Your task to perform on an android device: Search for dell xps on ebay, select the first entry, add it to the cart, then select checkout. Image 0: 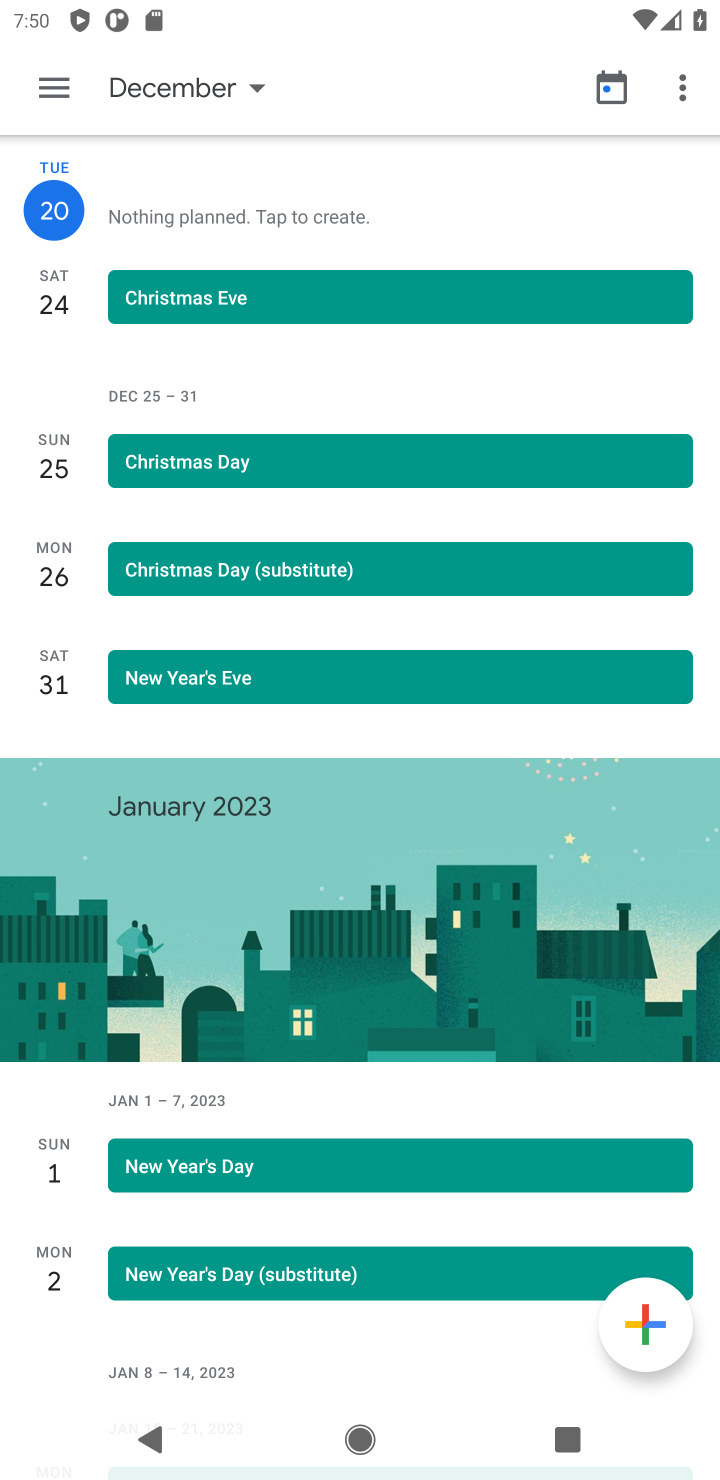
Step 0: press home button
Your task to perform on an android device: Search for dell xps on ebay, select the first entry, add it to the cart, then select checkout. Image 1: 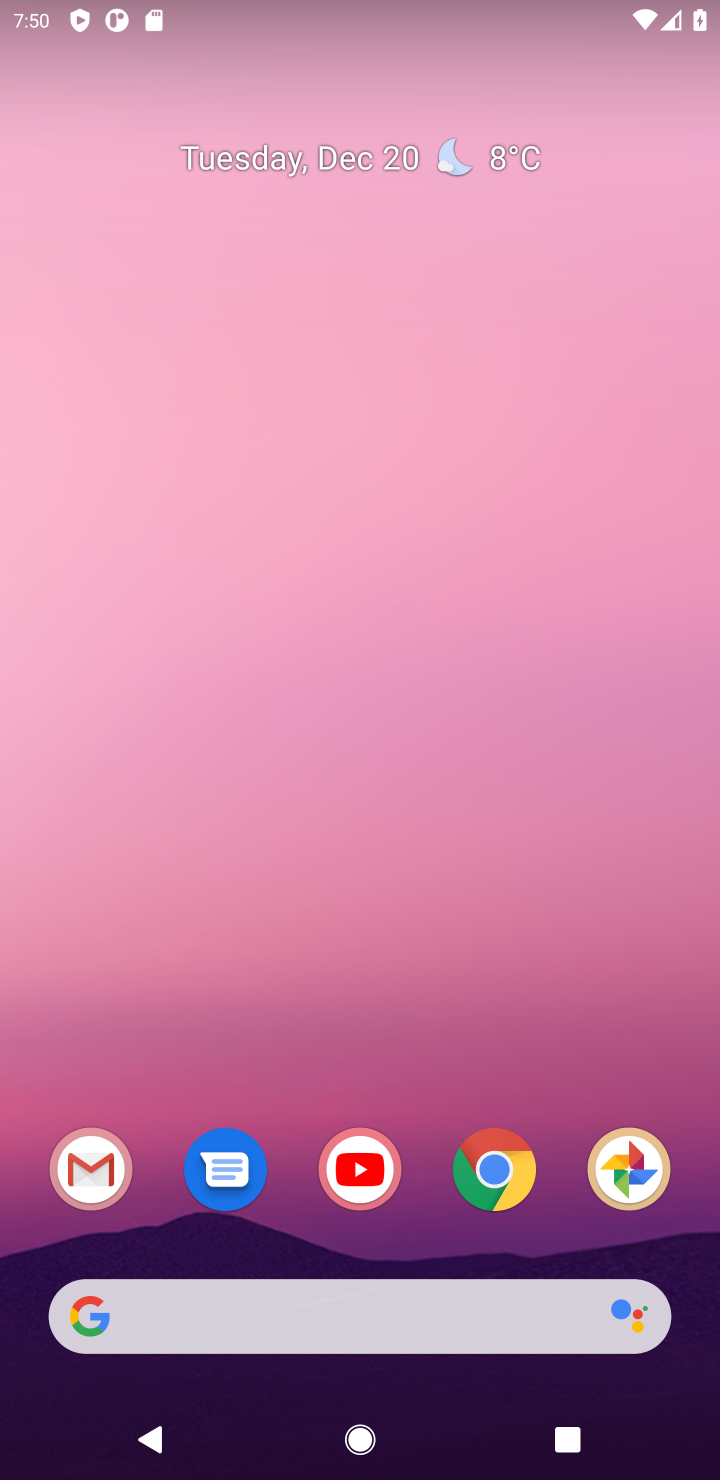
Step 1: click (474, 1188)
Your task to perform on an android device: Search for dell xps on ebay, select the first entry, add it to the cart, then select checkout. Image 2: 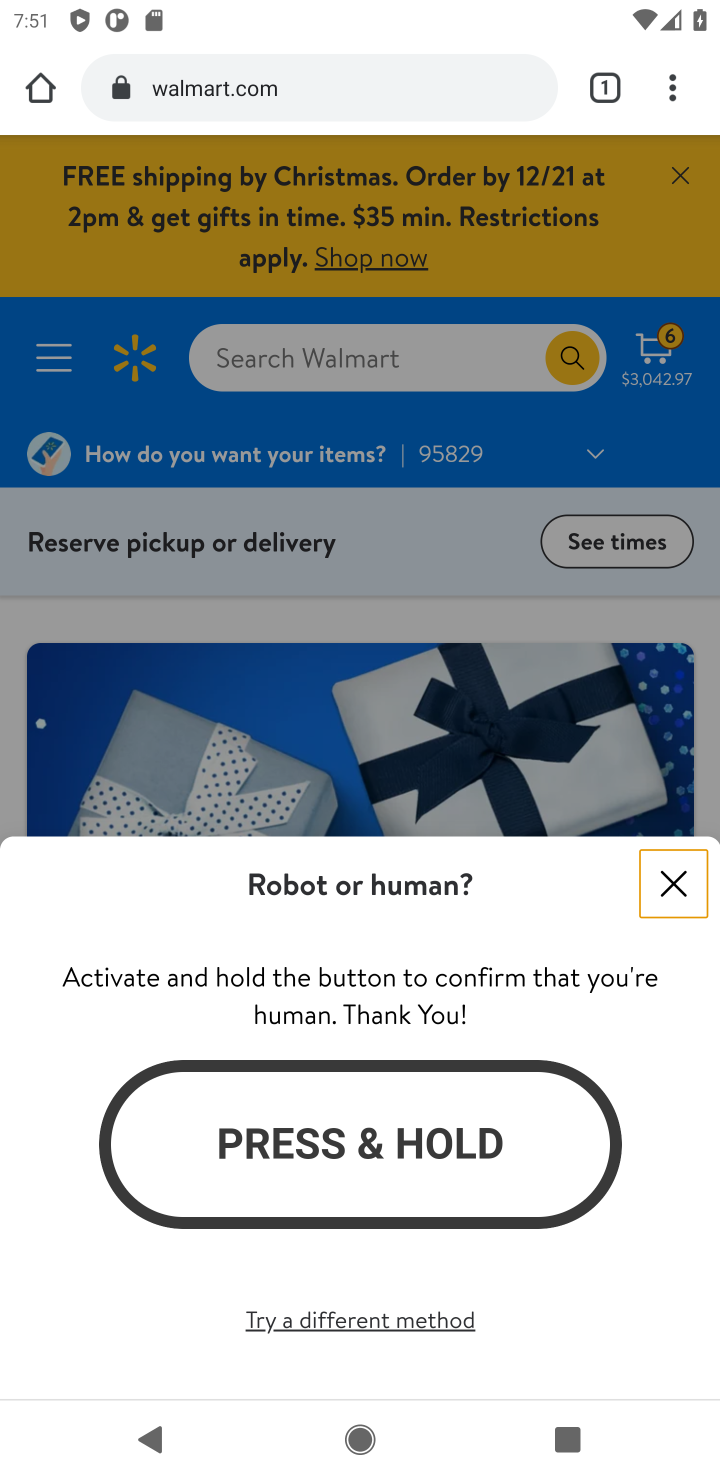
Step 2: task complete